Your task to perform on an android device: turn on data saver in the chrome app Image 0: 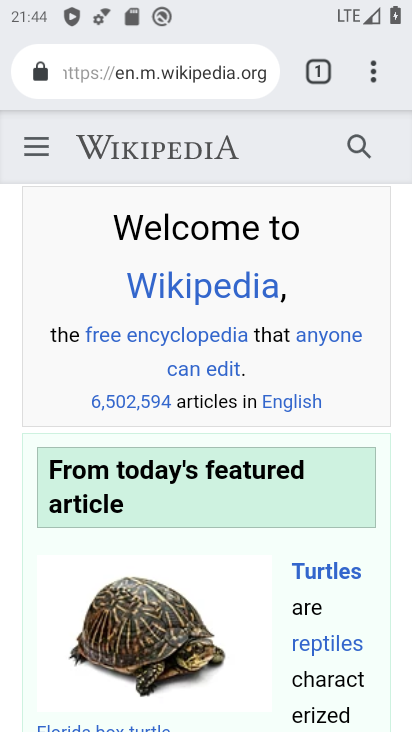
Step 0: press home button
Your task to perform on an android device: turn on data saver in the chrome app Image 1: 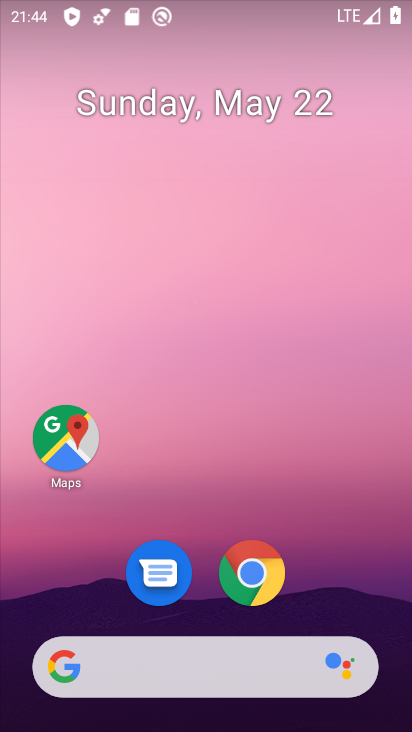
Step 1: click (255, 551)
Your task to perform on an android device: turn on data saver in the chrome app Image 2: 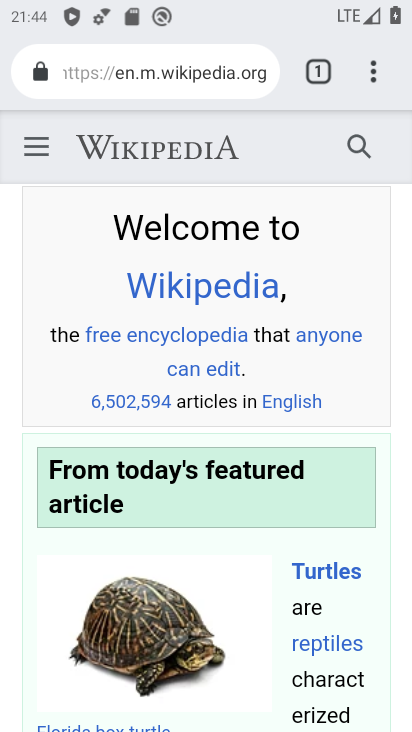
Step 2: drag from (377, 56) to (150, 559)
Your task to perform on an android device: turn on data saver in the chrome app Image 3: 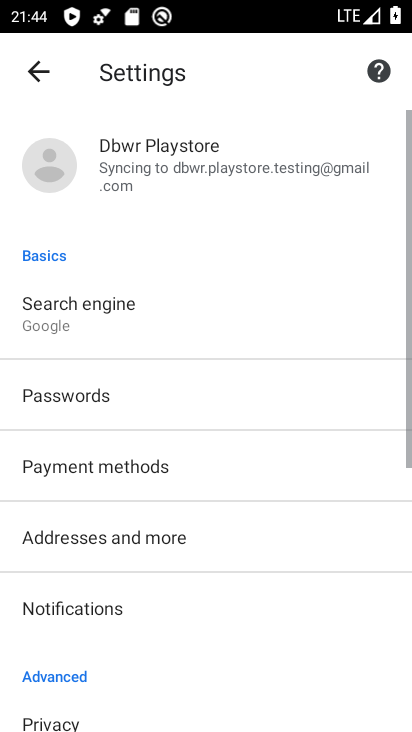
Step 3: drag from (160, 647) to (166, 20)
Your task to perform on an android device: turn on data saver in the chrome app Image 4: 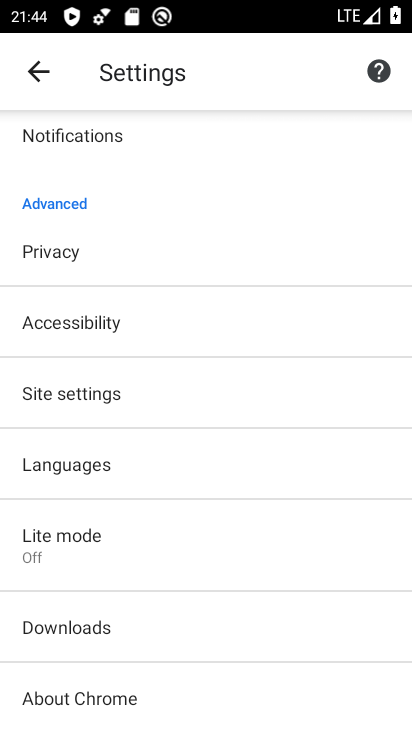
Step 4: click (34, 538)
Your task to perform on an android device: turn on data saver in the chrome app Image 5: 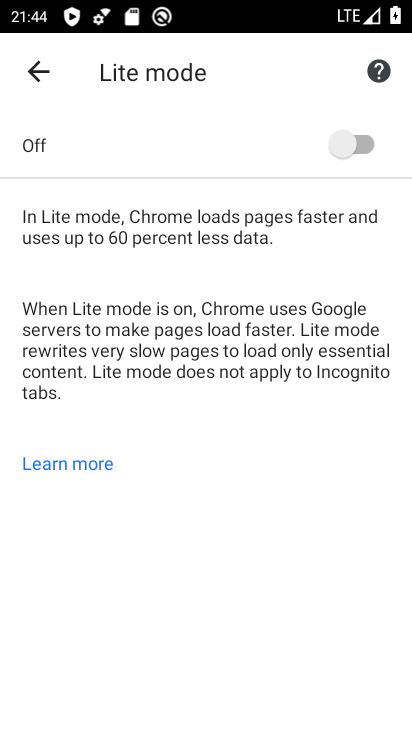
Step 5: click (325, 146)
Your task to perform on an android device: turn on data saver in the chrome app Image 6: 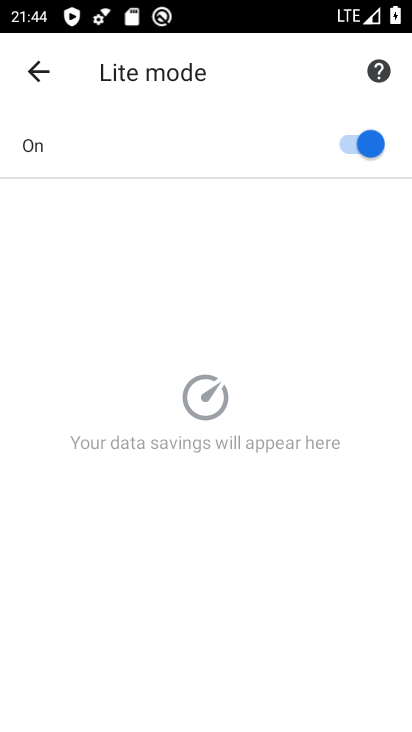
Step 6: task complete